Your task to perform on an android device: Is it going to rain today? Image 0: 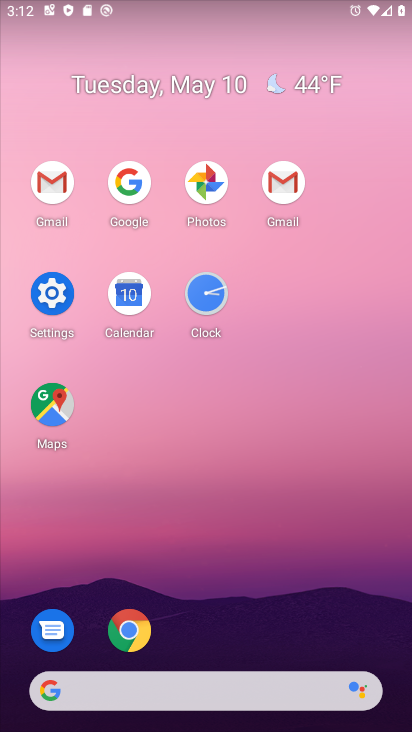
Step 0: click (131, 191)
Your task to perform on an android device: Is it going to rain today? Image 1: 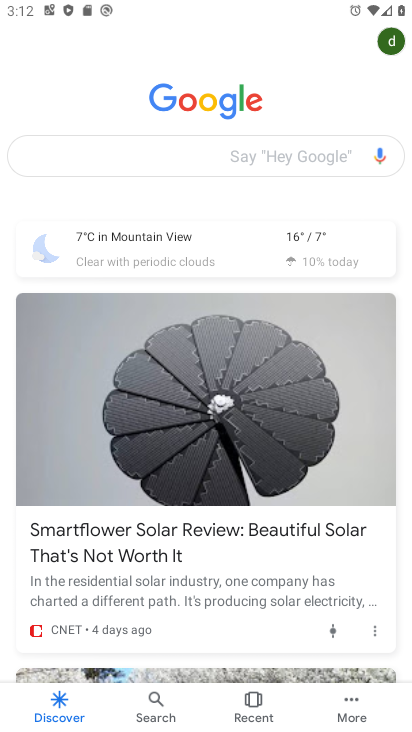
Step 1: click (157, 256)
Your task to perform on an android device: Is it going to rain today? Image 2: 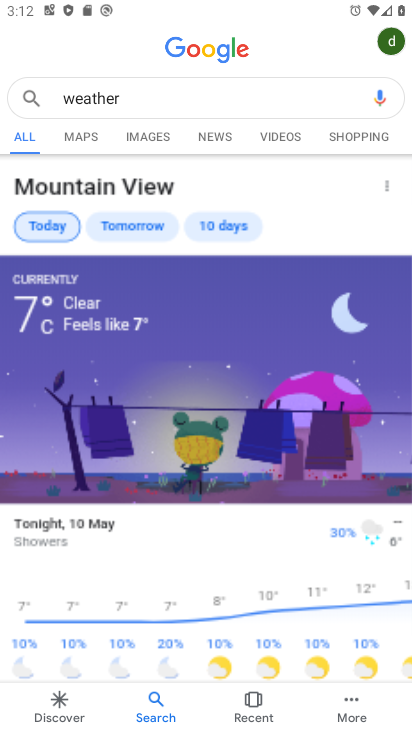
Step 2: task complete